Your task to perform on an android device: Open CNN.com Image 0: 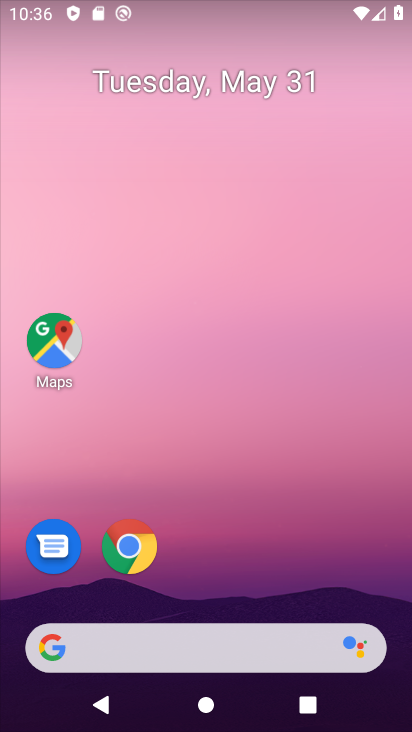
Step 0: click (141, 559)
Your task to perform on an android device: Open CNN.com Image 1: 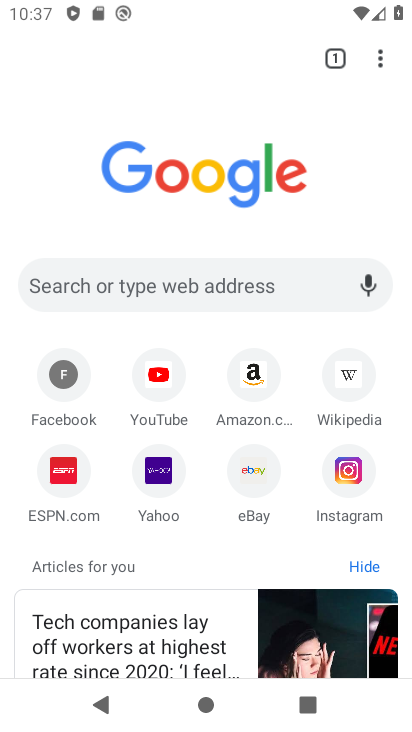
Step 1: click (223, 292)
Your task to perform on an android device: Open CNN.com Image 2: 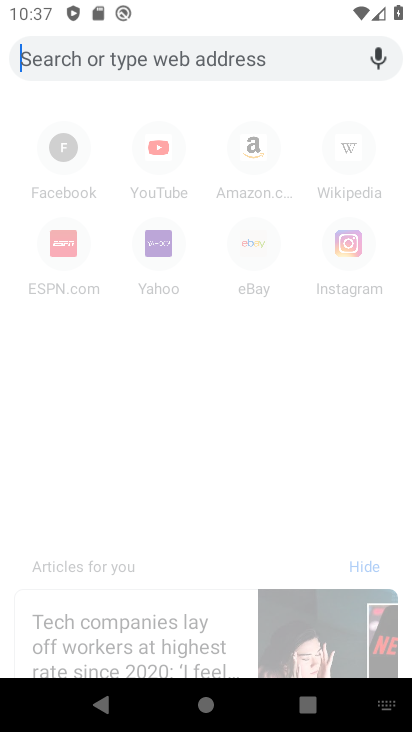
Step 2: type "cnn.com"
Your task to perform on an android device: Open CNN.com Image 3: 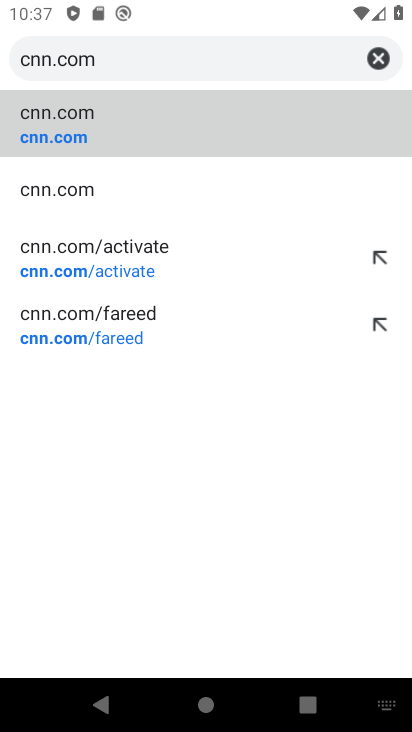
Step 3: click (113, 138)
Your task to perform on an android device: Open CNN.com Image 4: 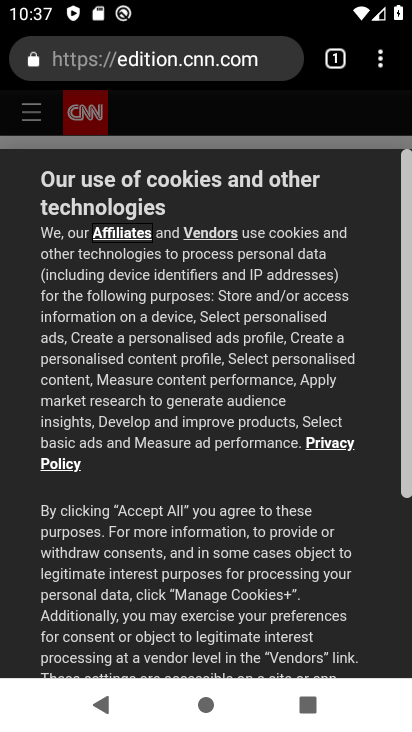
Step 4: drag from (407, 397) to (365, 659)
Your task to perform on an android device: Open CNN.com Image 5: 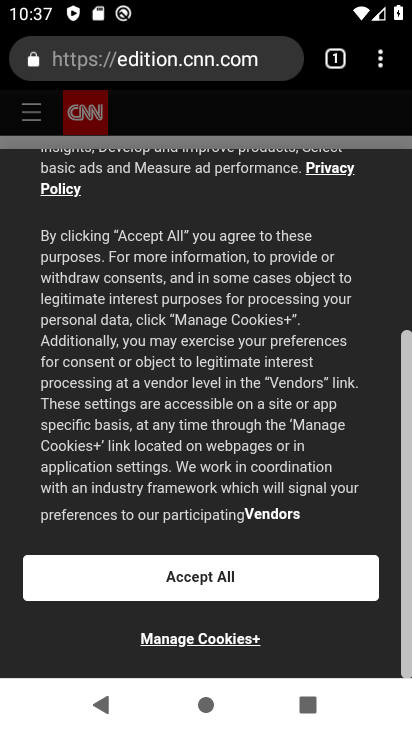
Step 5: click (216, 587)
Your task to perform on an android device: Open CNN.com Image 6: 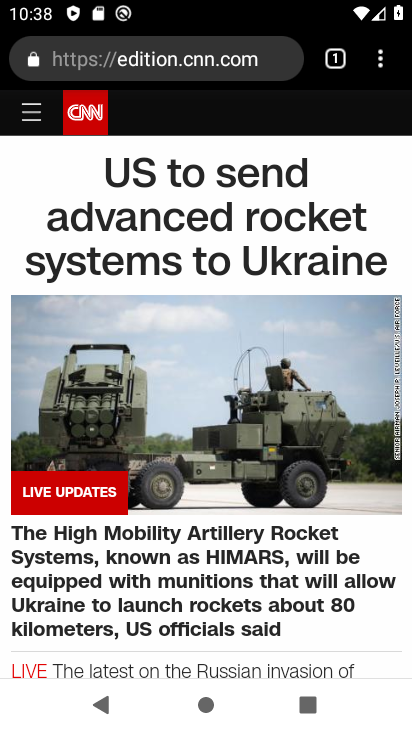
Step 6: task complete